Your task to perform on an android device: read, delete, or share a saved page in the chrome app Image 0: 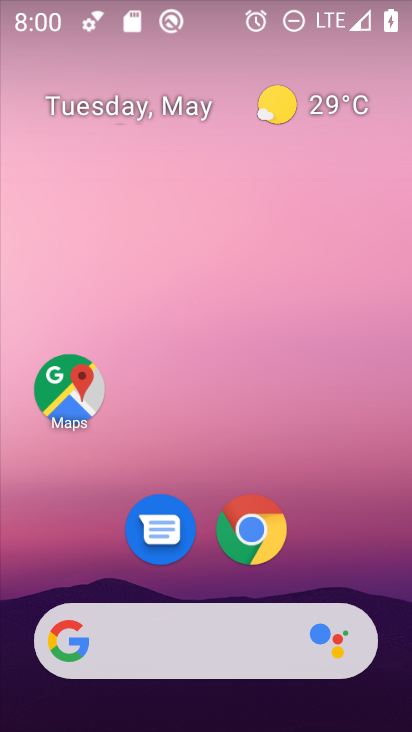
Step 0: drag from (389, 634) to (408, 25)
Your task to perform on an android device: read, delete, or share a saved page in the chrome app Image 1: 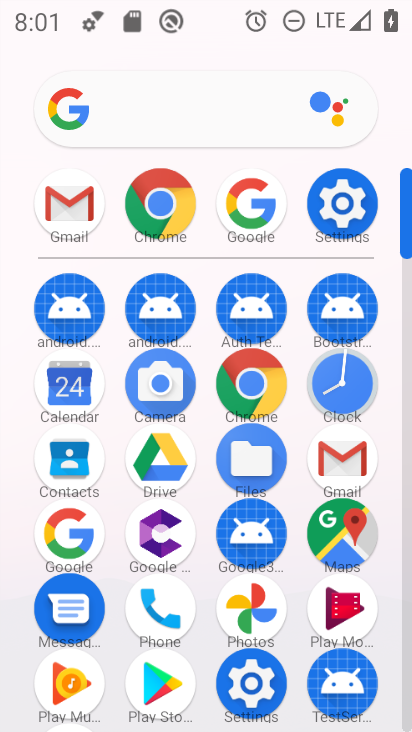
Step 1: click (274, 383)
Your task to perform on an android device: read, delete, or share a saved page in the chrome app Image 2: 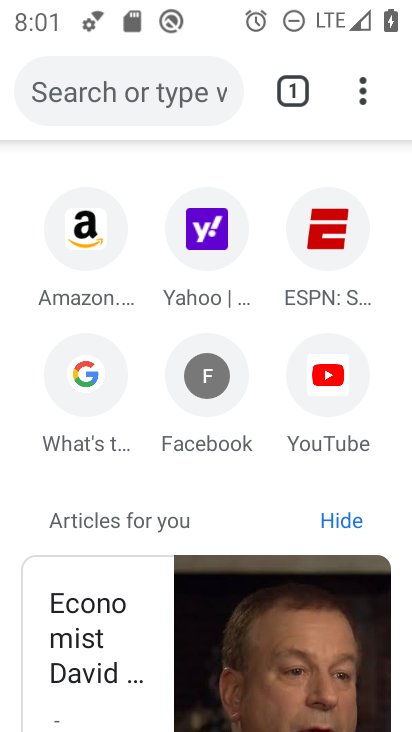
Step 2: task complete